Your task to perform on an android device: find which apps use the phone's location Image 0: 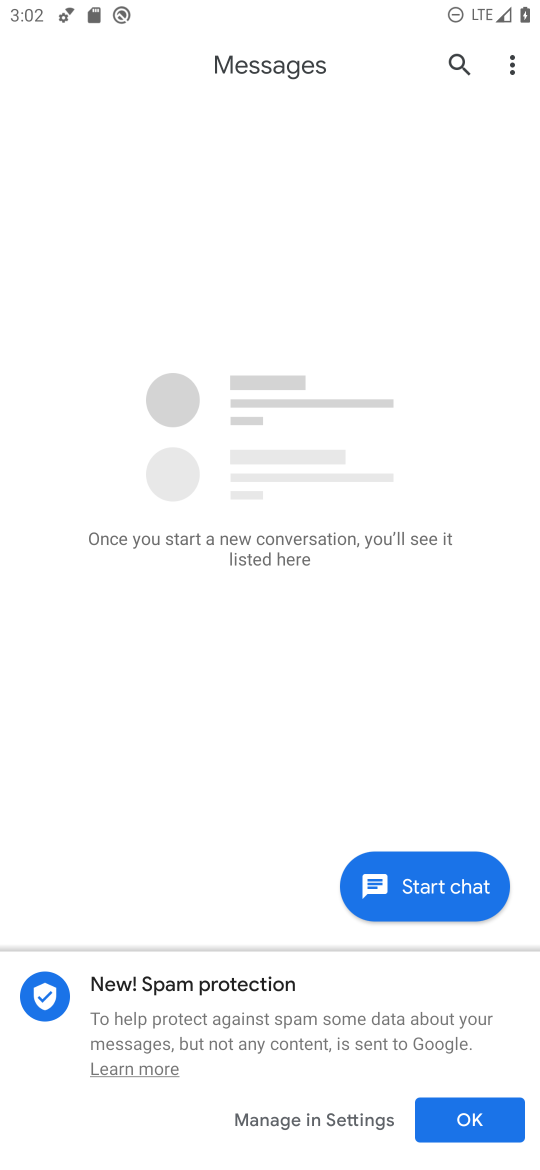
Step 0: press home button
Your task to perform on an android device: find which apps use the phone's location Image 1: 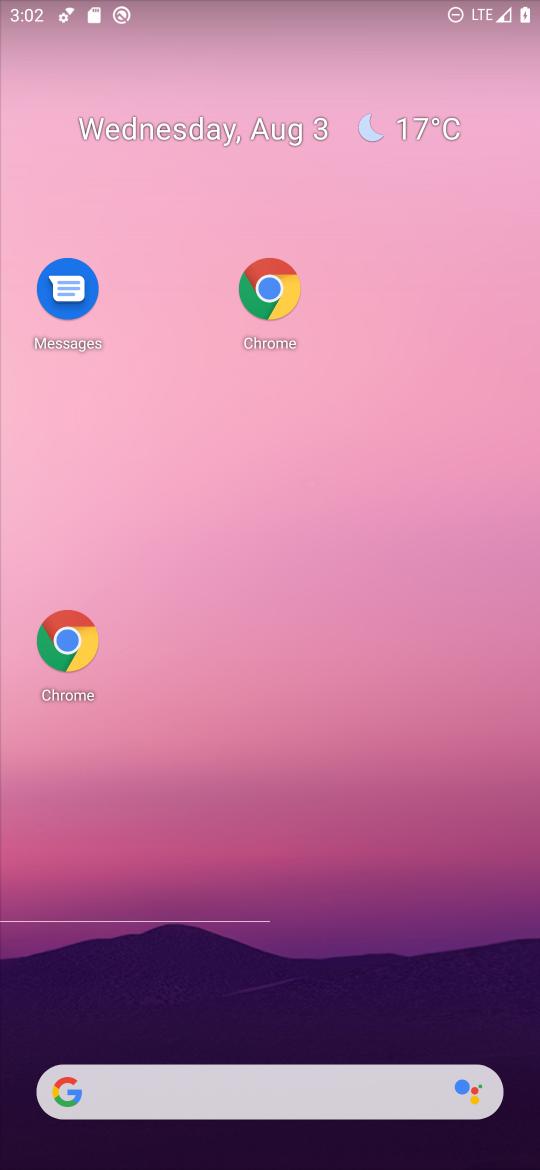
Step 1: drag from (436, 897) to (402, 256)
Your task to perform on an android device: find which apps use the phone's location Image 2: 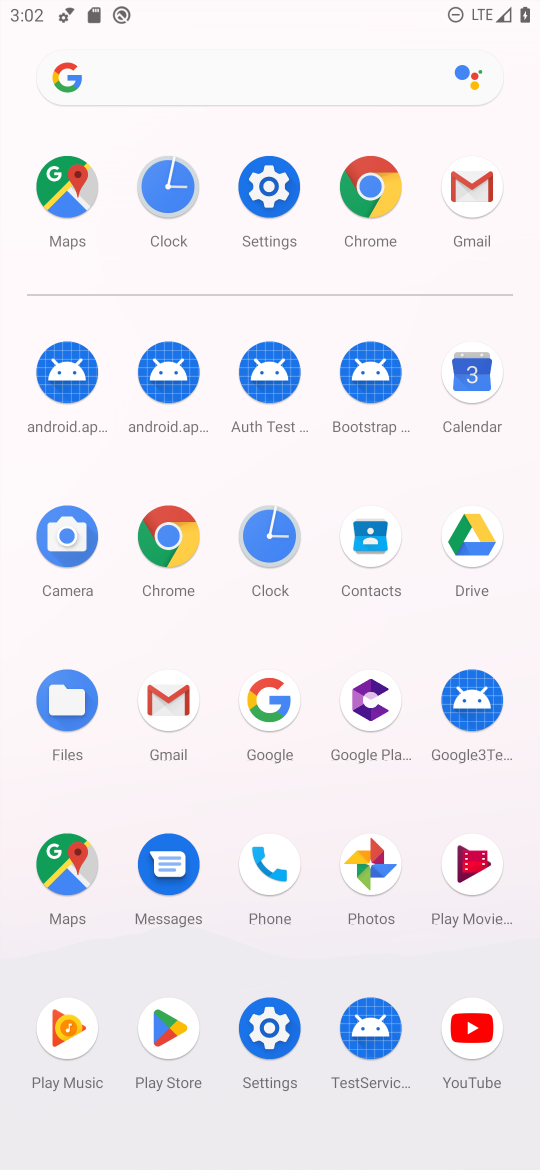
Step 2: click (263, 240)
Your task to perform on an android device: find which apps use the phone's location Image 3: 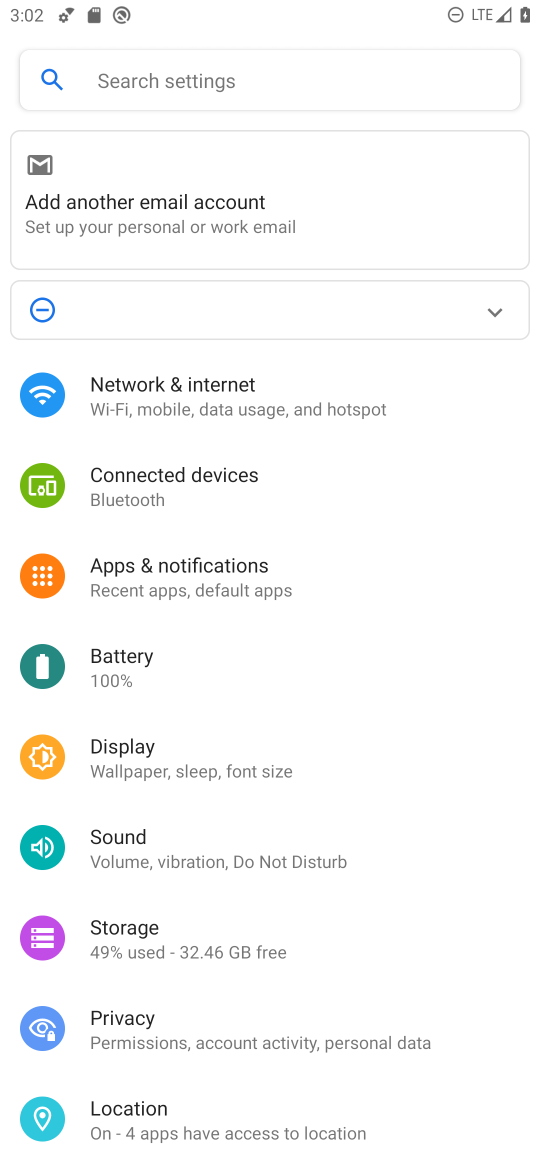
Step 3: click (220, 1118)
Your task to perform on an android device: find which apps use the phone's location Image 4: 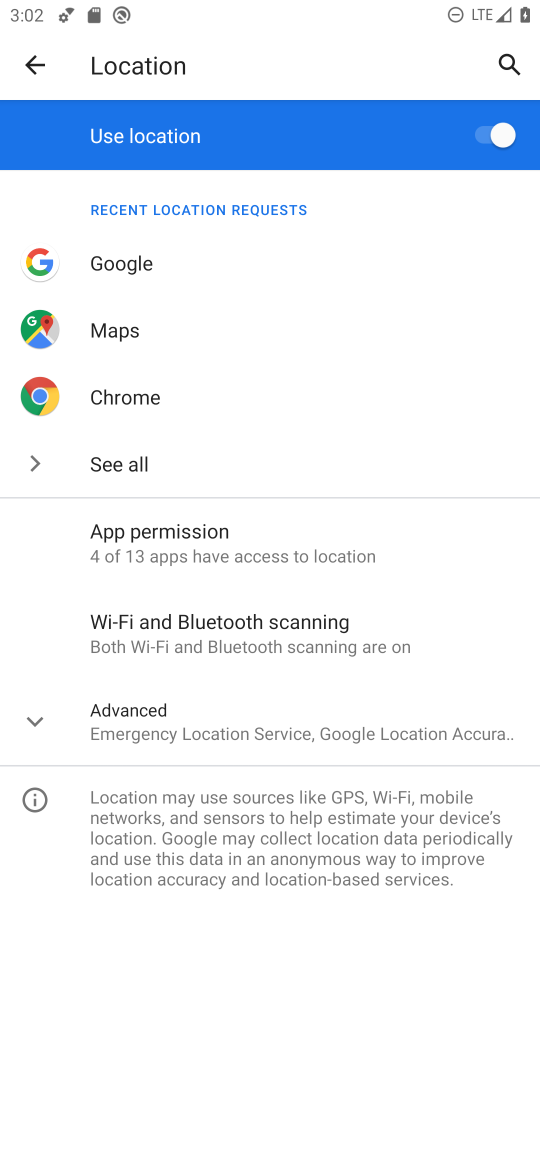
Step 4: click (243, 554)
Your task to perform on an android device: find which apps use the phone's location Image 5: 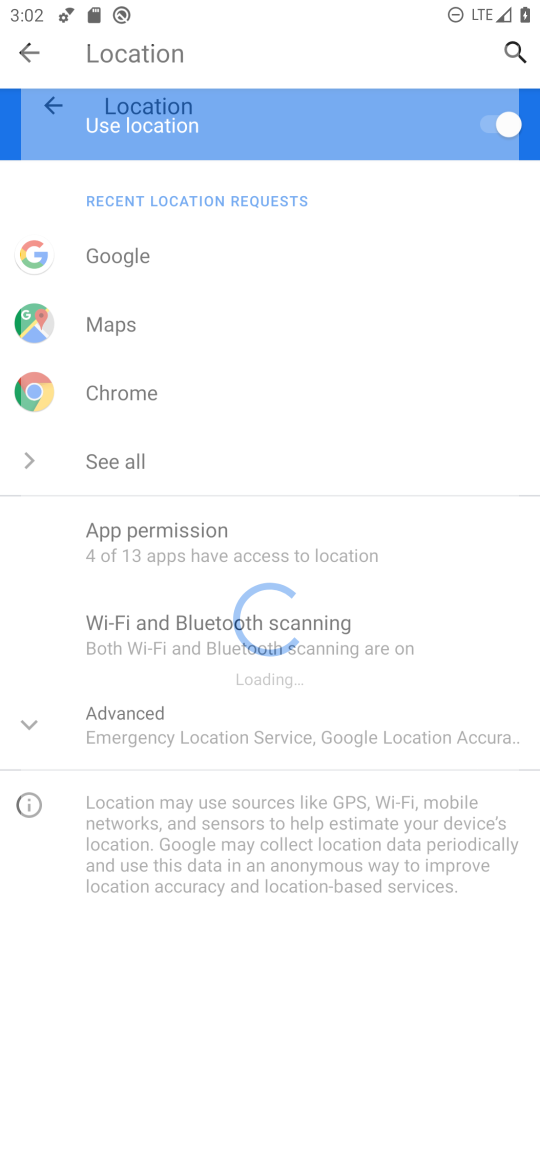
Step 5: task complete